Your task to perform on an android device: Toggle the flashlight Image 0: 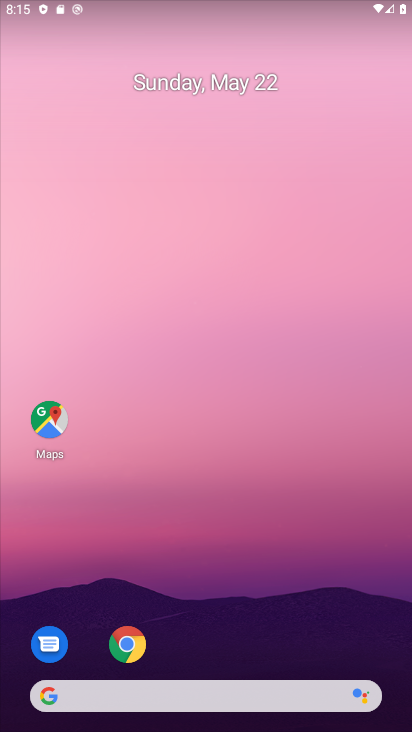
Step 0: drag from (92, 7) to (149, 366)
Your task to perform on an android device: Toggle the flashlight Image 1: 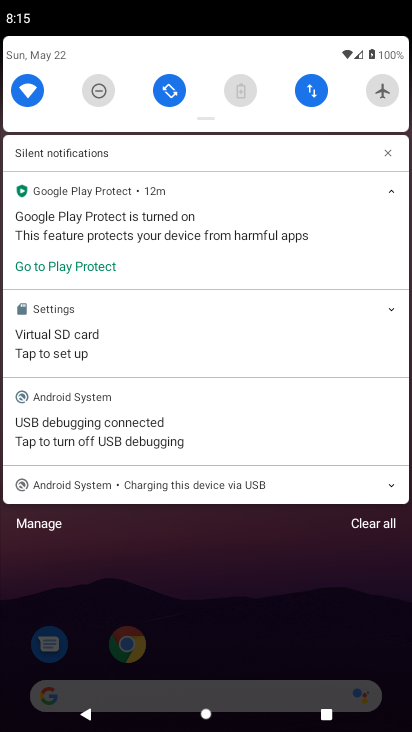
Step 1: task complete